Your task to perform on an android device: toggle notification dots Image 0: 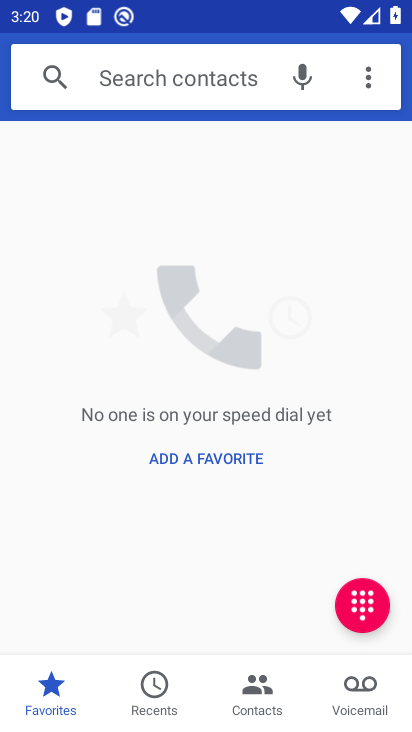
Step 0: press home button
Your task to perform on an android device: toggle notification dots Image 1: 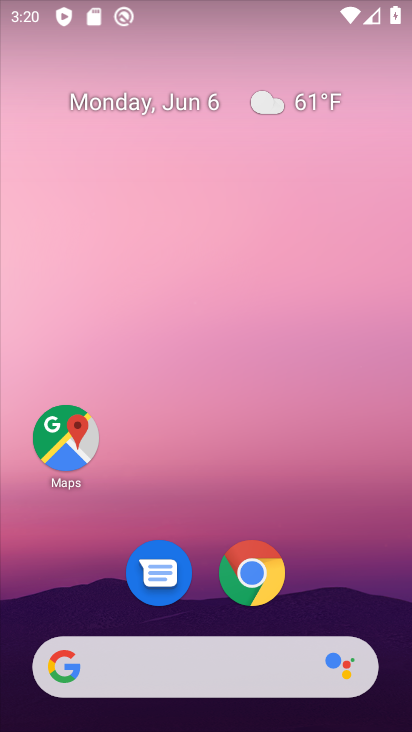
Step 1: drag from (220, 644) to (230, 313)
Your task to perform on an android device: toggle notification dots Image 2: 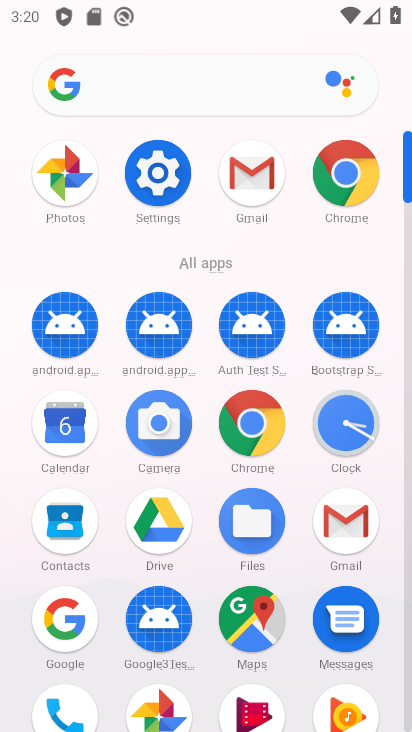
Step 2: click (161, 164)
Your task to perform on an android device: toggle notification dots Image 3: 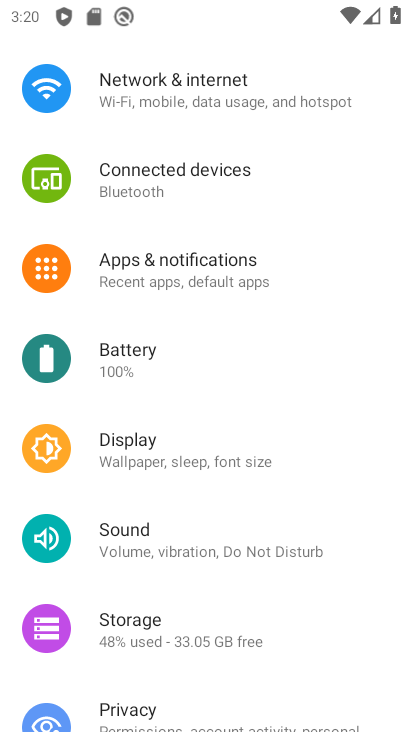
Step 3: click (182, 264)
Your task to perform on an android device: toggle notification dots Image 4: 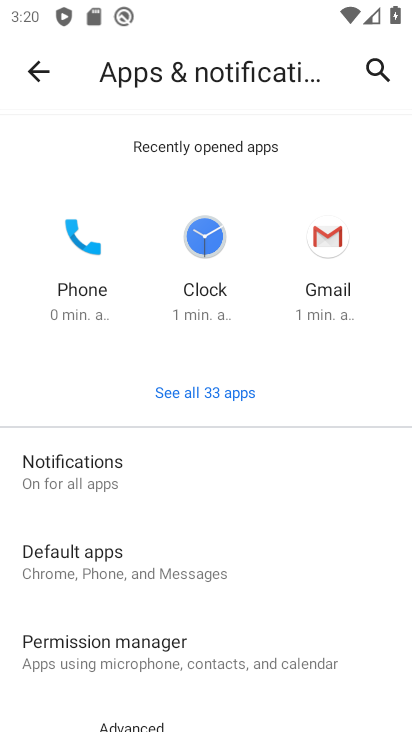
Step 4: click (71, 474)
Your task to perform on an android device: toggle notification dots Image 5: 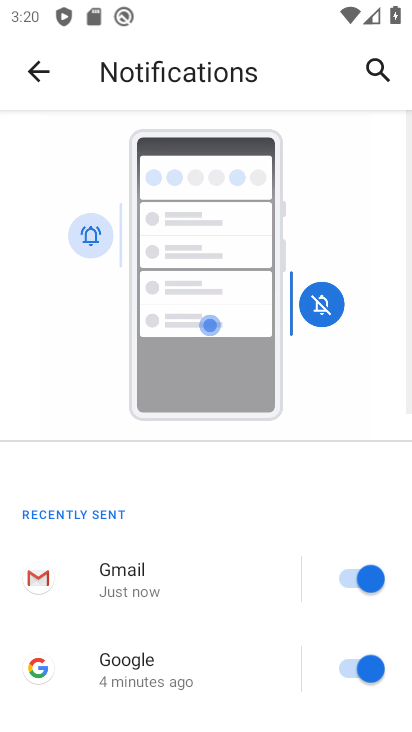
Step 5: drag from (255, 678) to (255, 322)
Your task to perform on an android device: toggle notification dots Image 6: 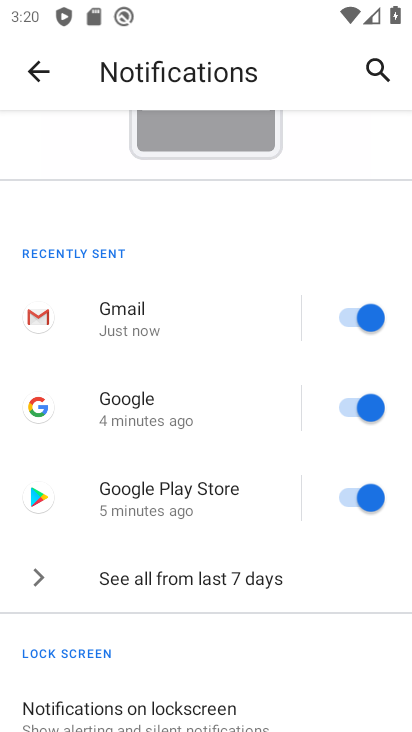
Step 6: drag from (266, 613) to (278, 280)
Your task to perform on an android device: toggle notification dots Image 7: 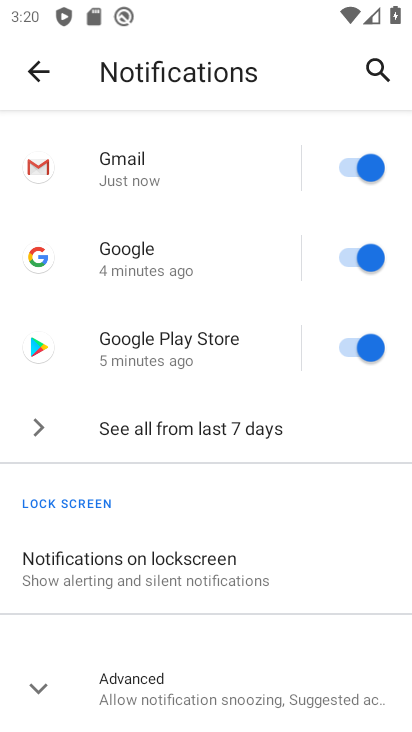
Step 7: click (203, 698)
Your task to perform on an android device: toggle notification dots Image 8: 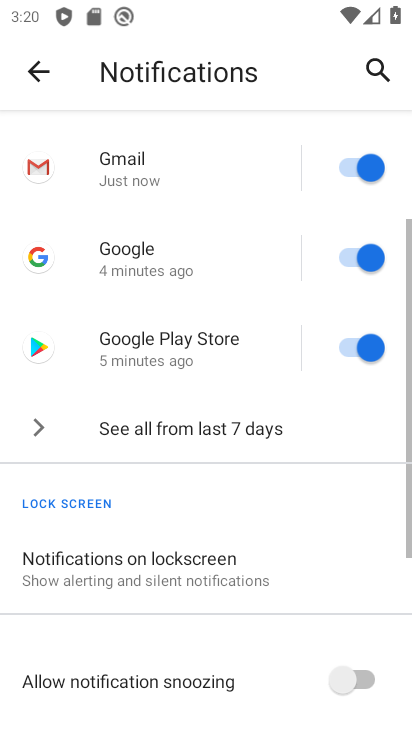
Step 8: drag from (298, 633) to (290, 355)
Your task to perform on an android device: toggle notification dots Image 9: 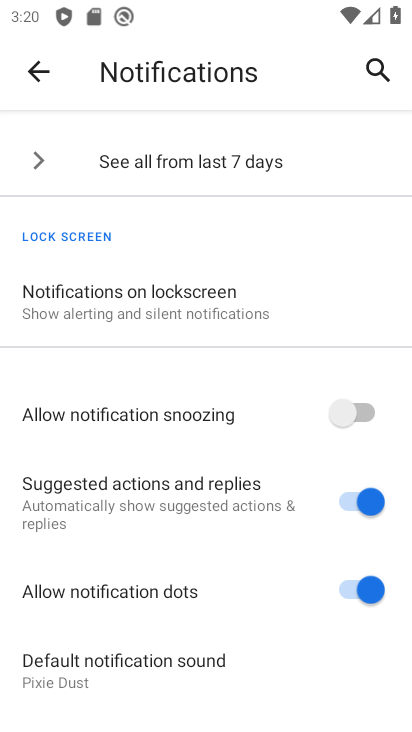
Step 9: click (334, 594)
Your task to perform on an android device: toggle notification dots Image 10: 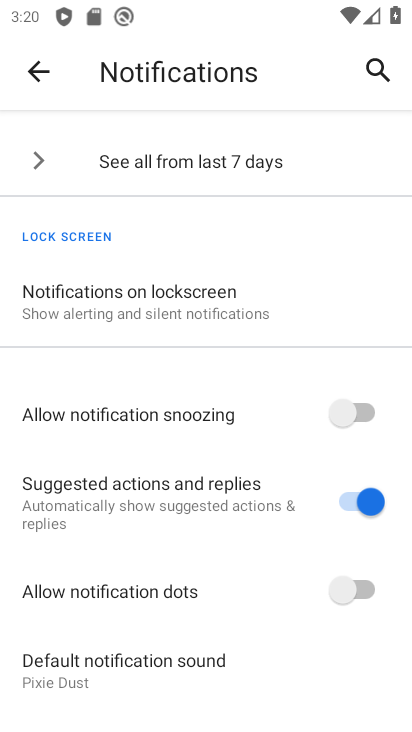
Step 10: task complete